Your task to perform on an android device: Go to Google maps Image 0: 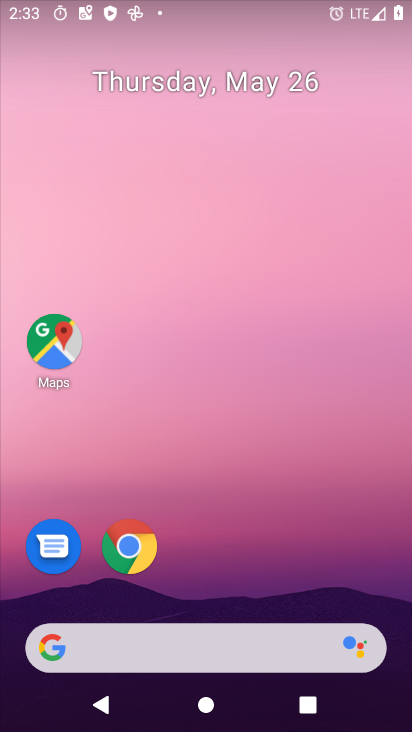
Step 0: click (62, 349)
Your task to perform on an android device: Go to Google maps Image 1: 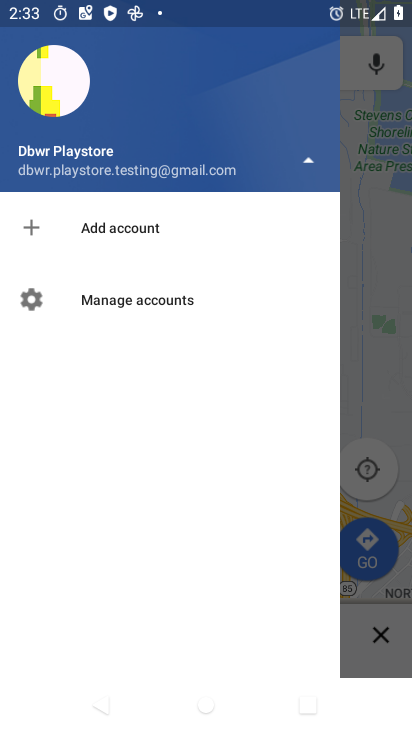
Step 1: task complete